Your task to perform on an android device: Open the calendar app, open the side menu, and click the "Day" option Image 0: 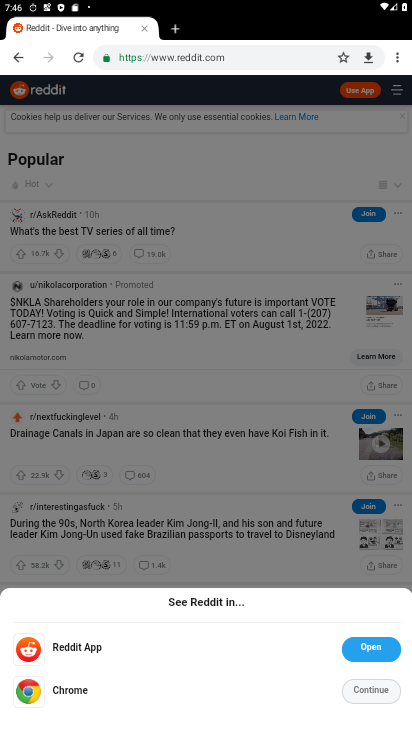
Step 0: press home button
Your task to perform on an android device: Open the calendar app, open the side menu, and click the "Day" option Image 1: 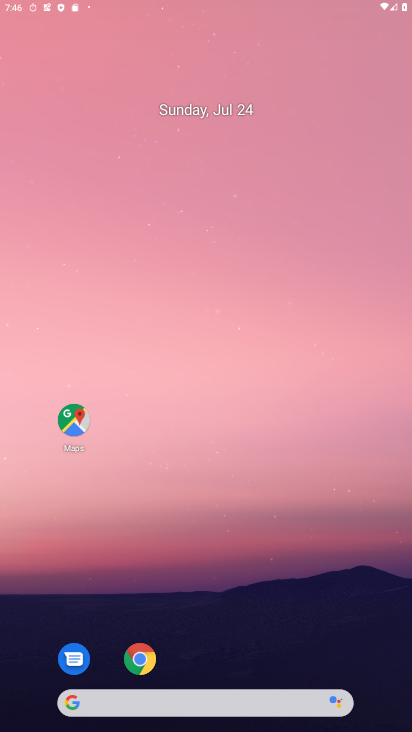
Step 1: drag from (295, 660) to (141, 77)
Your task to perform on an android device: Open the calendar app, open the side menu, and click the "Day" option Image 2: 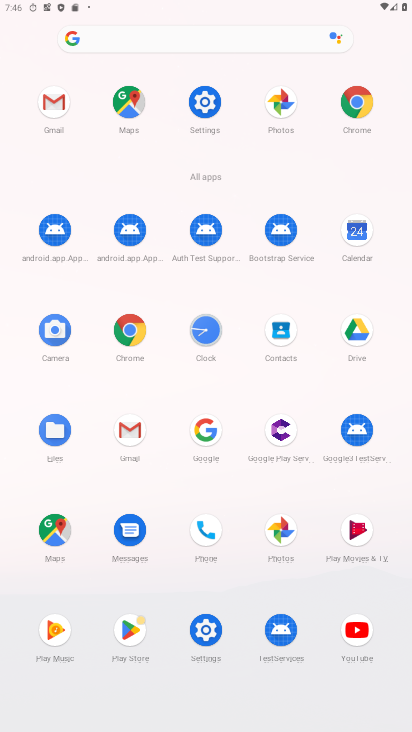
Step 2: click (353, 219)
Your task to perform on an android device: Open the calendar app, open the side menu, and click the "Day" option Image 3: 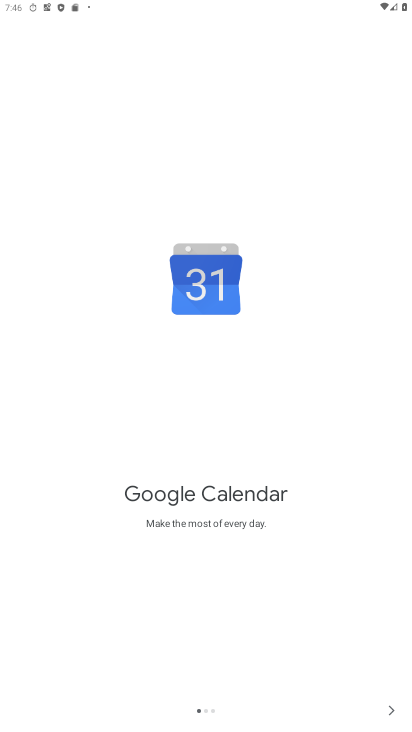
Step 3: click (396, 714)
Your task to perform on an android device: Open the calendar app, open the side menu, and click the "Day" option Image 4: 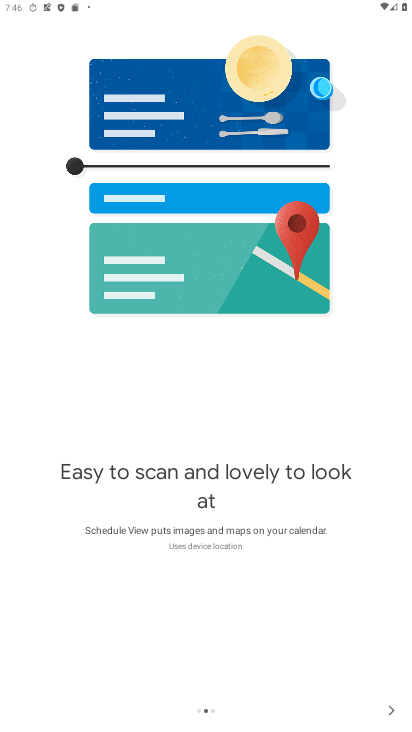
Step 4: click (394, 713)
Your task to perform on an android device: Open the calendar app, open the side menu, and click the "Day" option Image 5: 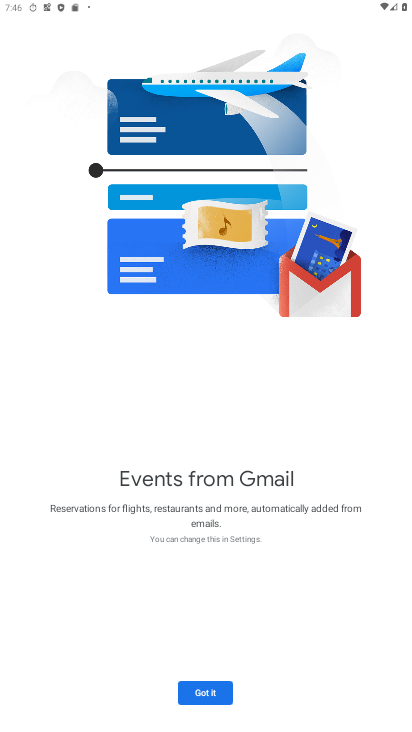
Step 5: click (200, 687)
Your task to perform on an android device: Open the calendar app, open the side menu, and click the "Day" option Image 6: 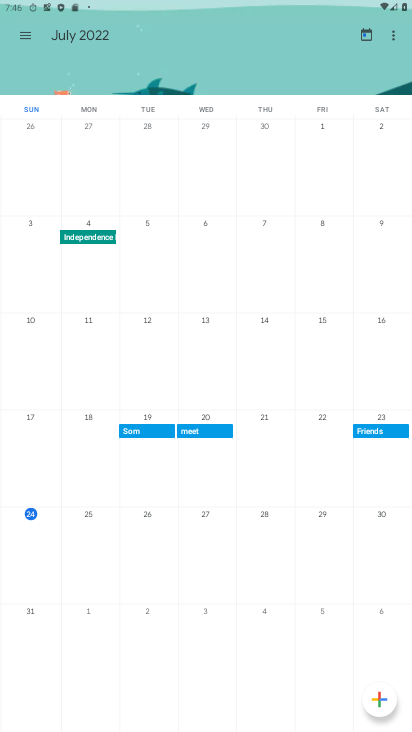
Step 6: click (27, 44)
Your task to perform on an android device: Open the calendar app, open the side menu, and click the "Day" option Image 7: 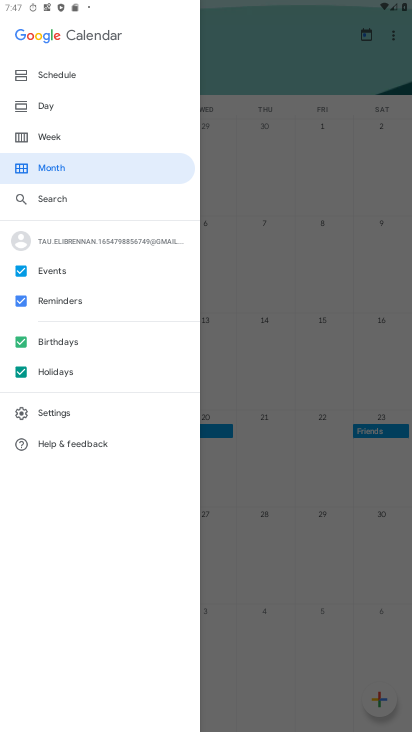
Step 7: click (48, 109)
Your task to perform on an android device: Open the calendar app, open the side menu, and click the "Day" option Image 8: 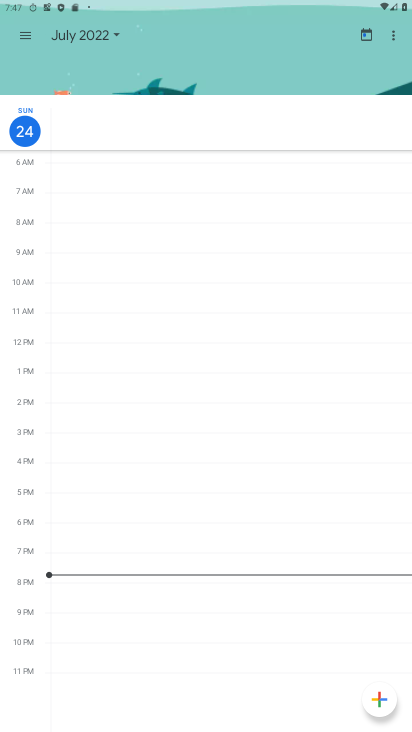
Step 8: task complete